Your task to perform on an android device: Open Youtube and go to the subscriptions tab Image 0: 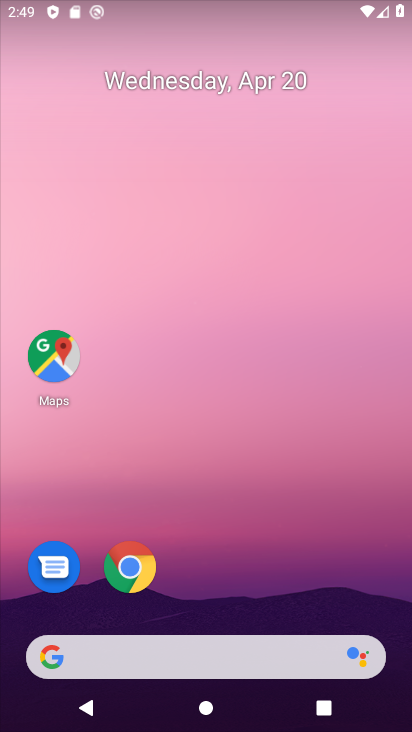
Step 0: drag from (216, 456) to (398, 13)
Your task to perform on an android device: Open Youtube and go to the subscriptions tab Image 1: 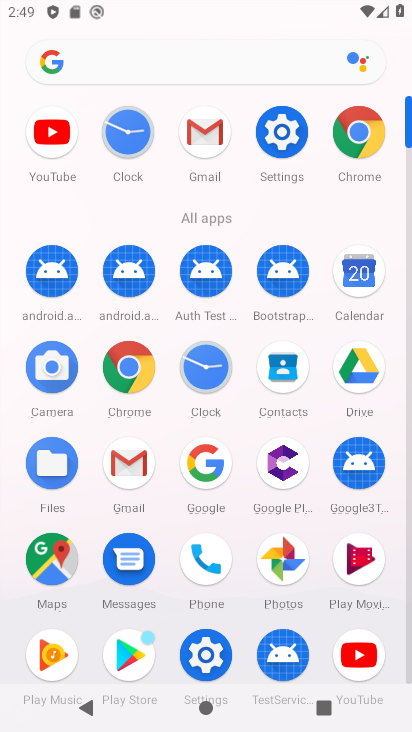
Step 1: click (48, 140)
Your task to perform on an android device: Open Youtube and go to the subscriptions tab Image 2: 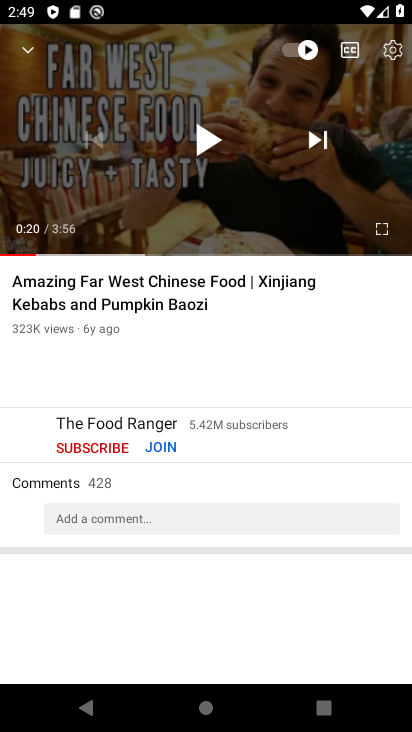
Step 2: click (44, 140)
Your task to perform on an android device: Open Youtube and go to the subscriptions tab Image 3: 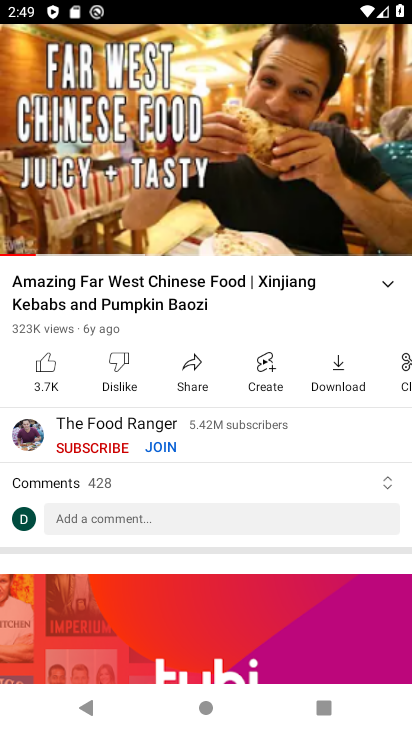
Step 3: click (89, 705)
Your task to perform on an android device: Open Youtube and go to the subscriptions tab Image 4: 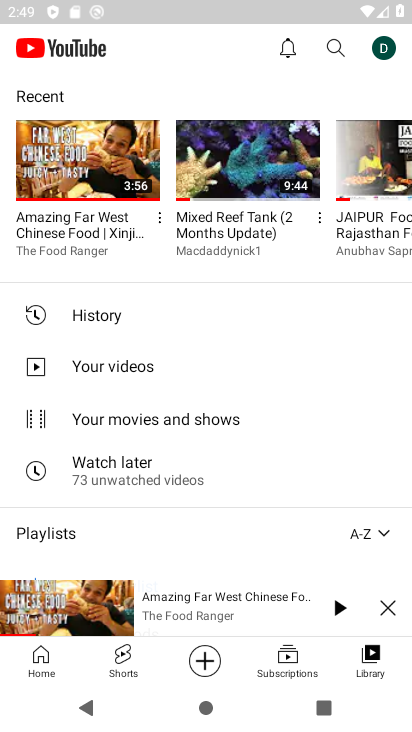
Step 4: click (393, 602)
Your task to perform on an android device: Open Youtube and go to the subscriptions tab Image 5: 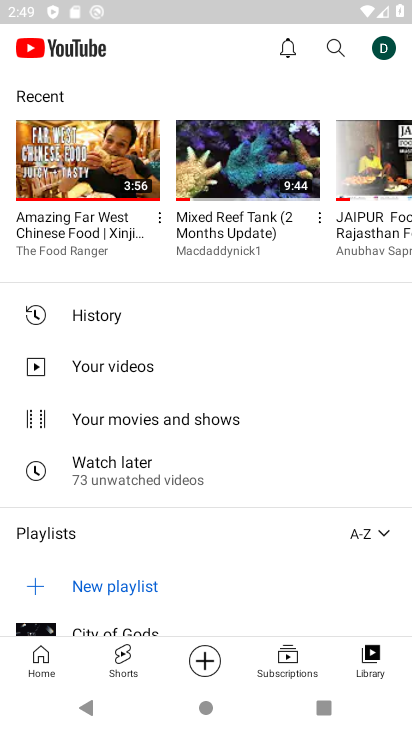
Step 5: click (293, 652)
Your task to perform on an android device: Open Youtube and go to the subscriptions tab Image 6: 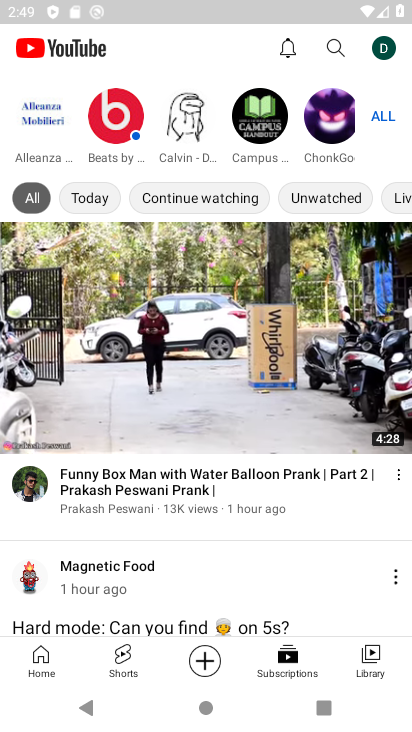
Step 6: task complete